Your task to perform on an android device: Open notification settings Image 0: 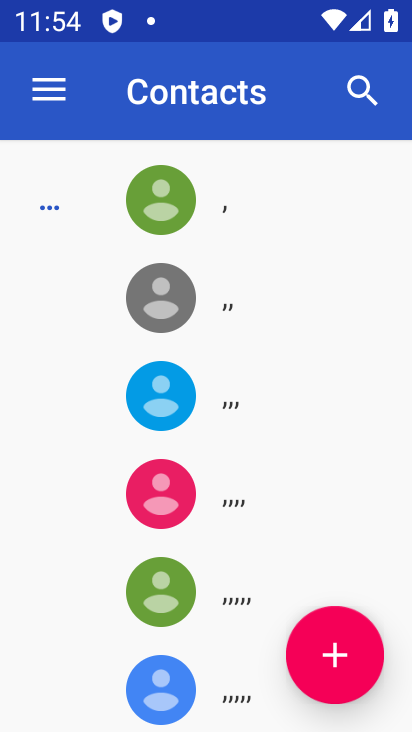
Step 0: press home button
Your task to perform on an android device: Open notification settings Image 1: 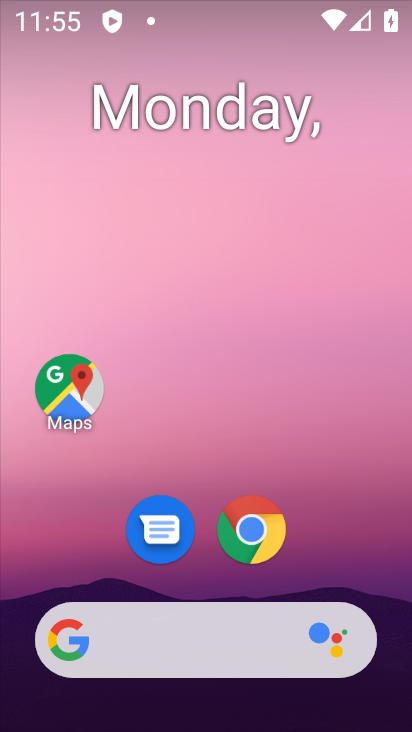
Step 1: drag from (362, 534) to (215, 108)
Your task to perform on an android device: Open notification settings Image 2: 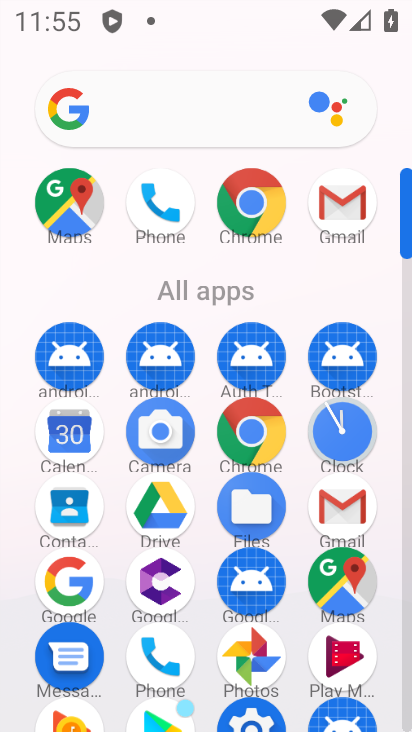
Step 2: click (408, 700)
Your task to perform on an android device: Open notification settings Image 3: 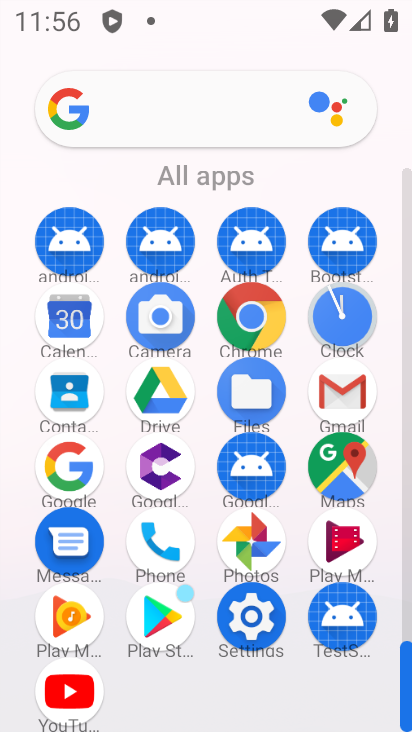
Step 3: click (233, 639)
Your task to perform on an android device: Open notification settings Image 4: 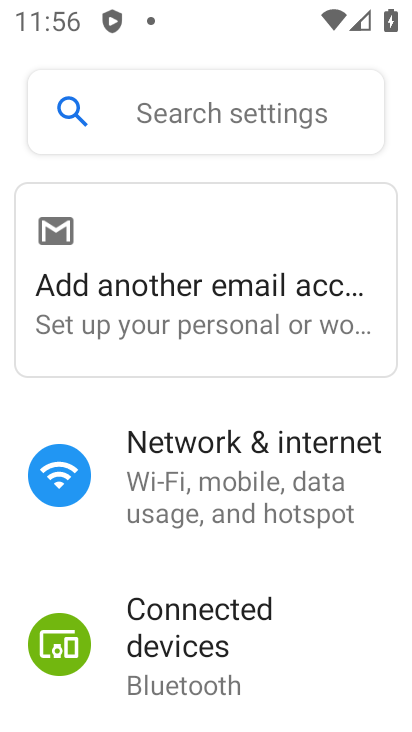
Step 4: click (257, 135)
Your task to perform on an android device: Open notification settings Image 5: 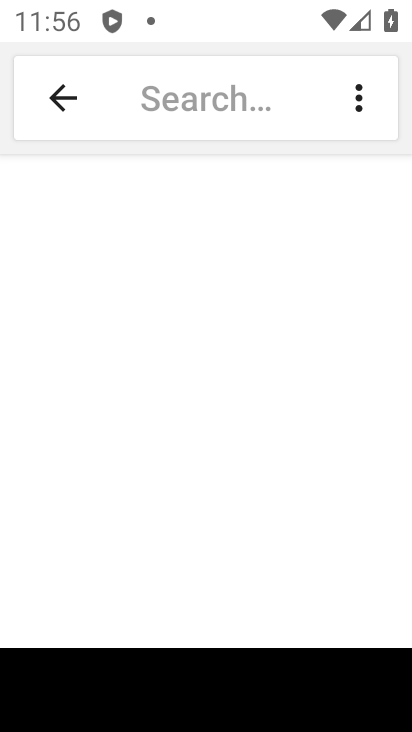
Step 5: click (57, 116)
Your task to perform on an android device: Open notification settings Image 6: 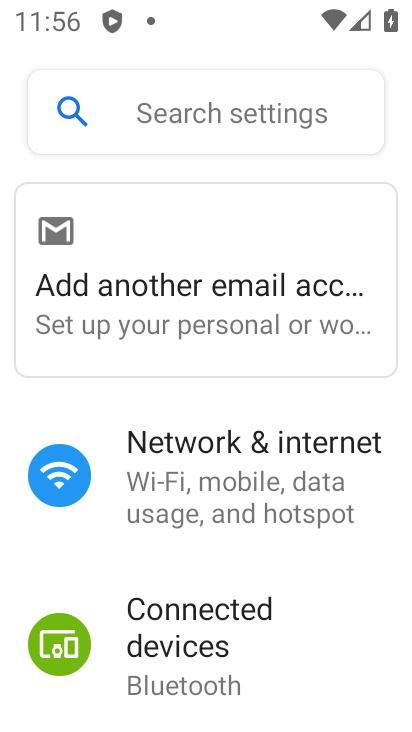
Step 6: drag from (160, 570) to (190, 229)
Your task to perform on an android device: Open notification settings Image 7: 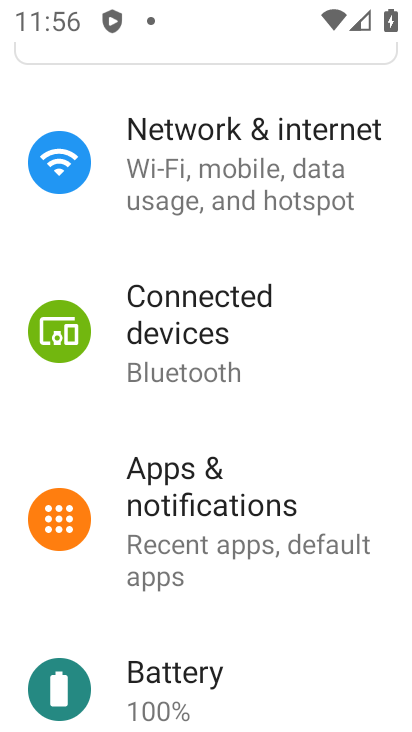
Step 7: drag from (207, 676) to (165, 393)
Your task to perform on an android device: Open notification settings Image 8: 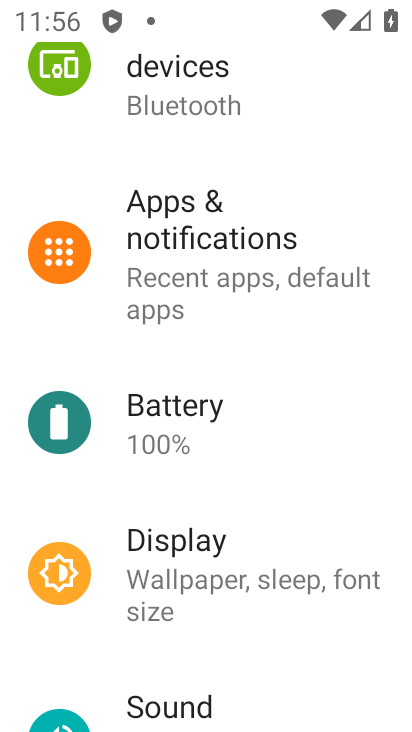
Step 8: click (176, 285)
Your task to perform on an android device: Open notification settings Image 9: 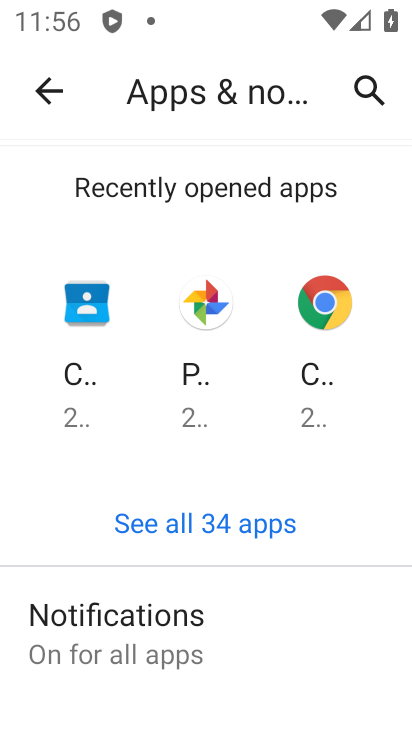
Step 9: click (131, 677)
Your task to perform on an android device: Open notification settings Image 10: 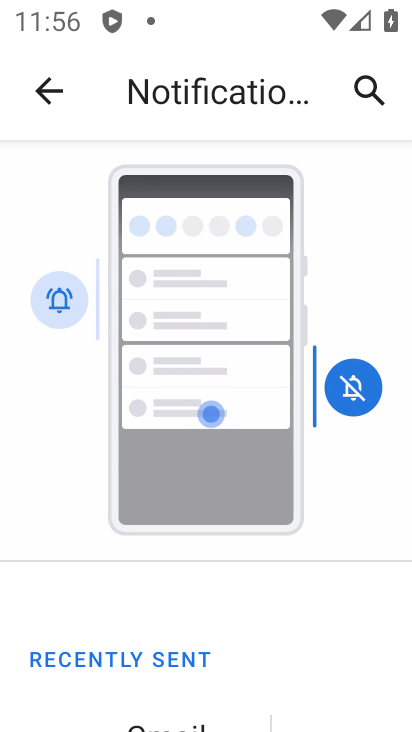
Step 10: task complete